Your task to perform on an android device: When is my next meeting? Image 0: 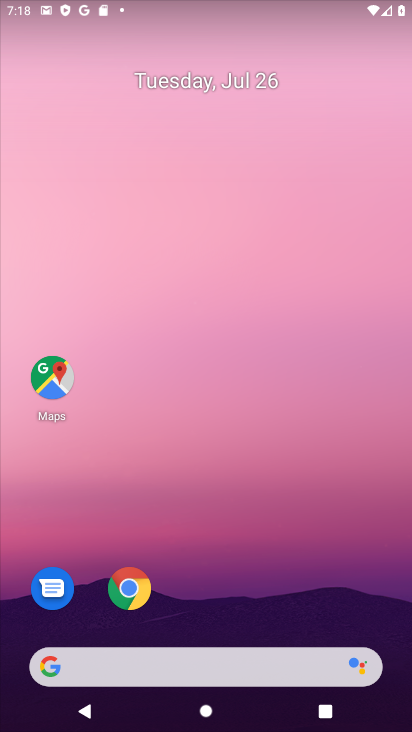
Step 0: drag from (221, 619) to (209, 68)
Your task to perform on an android device: When is my next meeting? Image 1: 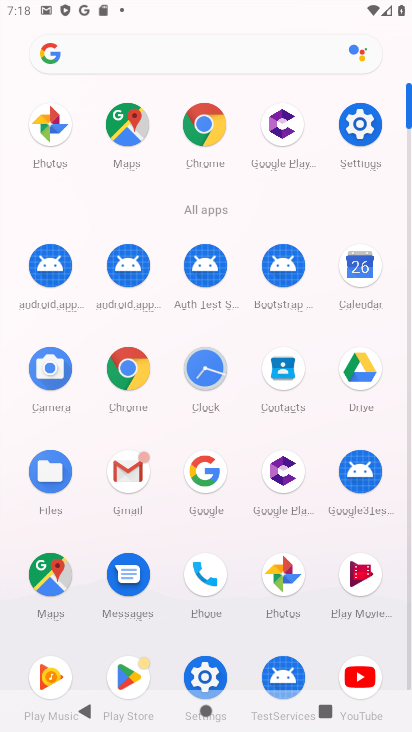
Step 1: click (366, 301)
Your task to perform on an android device: When is my next meeting? Image 2: 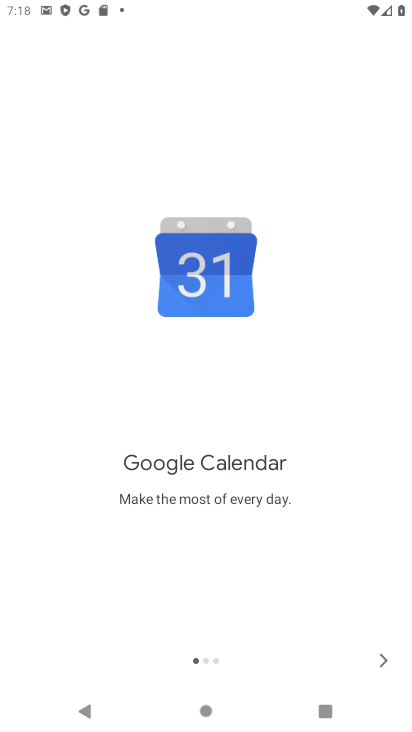
Step 2: click (390, 658)
Your task to perform on an android device: When is my next meeting? Image 3: 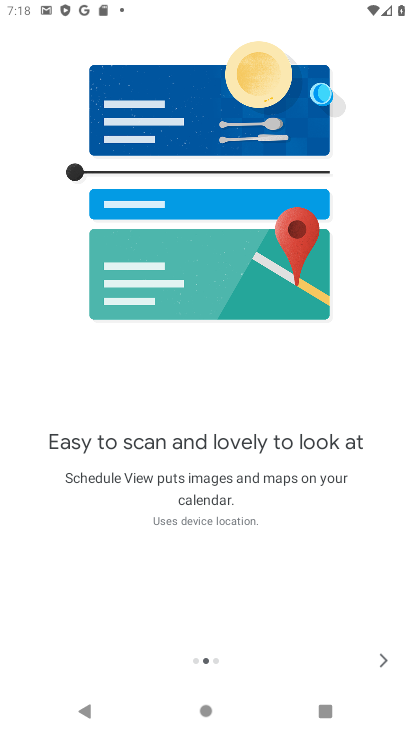
Step 3: click (380, 669)
Your task to perform on an android device: When is my next meeting? Image 4: 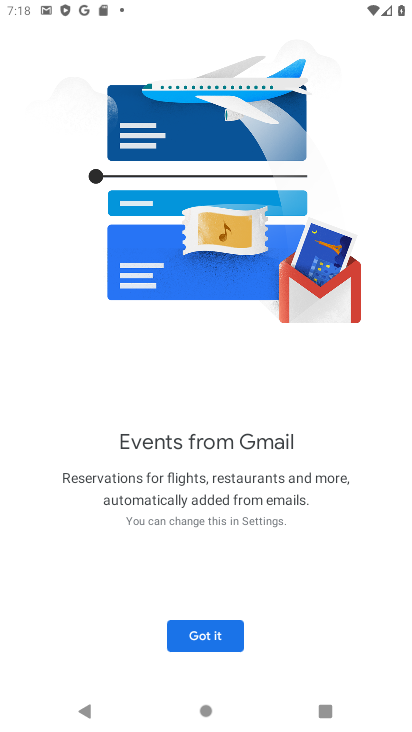
Step 4: click (209, 637)
Your task to perform on an android device: When is my next meeting? Image 5: 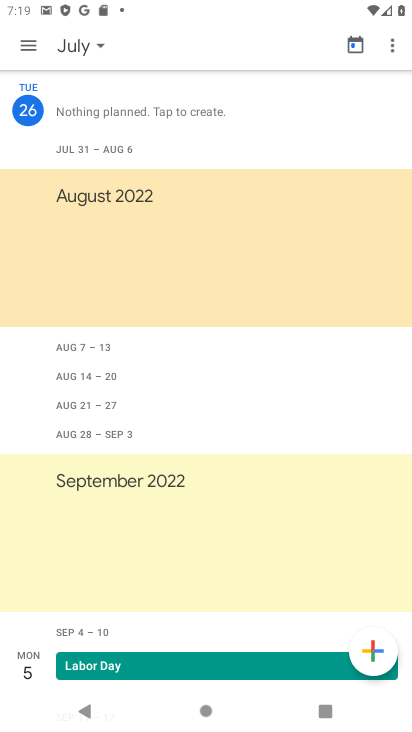
Step 5: click (33, 56)
Your task to perform on an android device: When is my next meeting? Image 6: 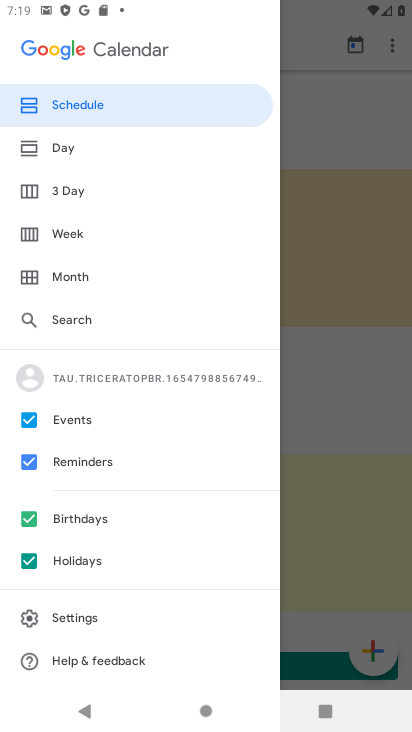
Step 6: click (27, 561)
Your task to perform on an android device: When is my next meeting? Image 7: 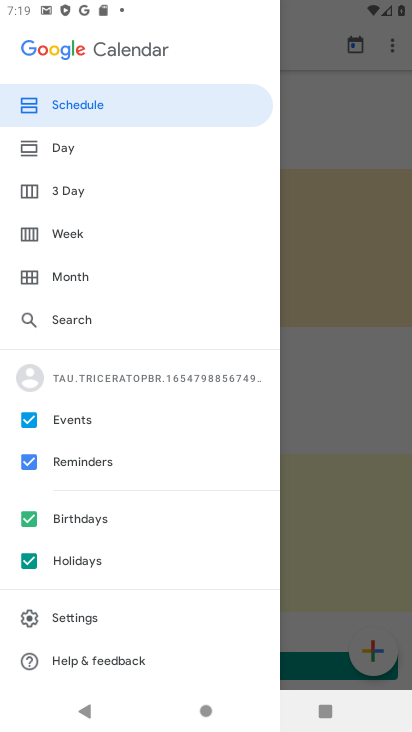
Step 7: click (30, 517)
Your task to perform on an android device: When is my next meeting? Image 8: 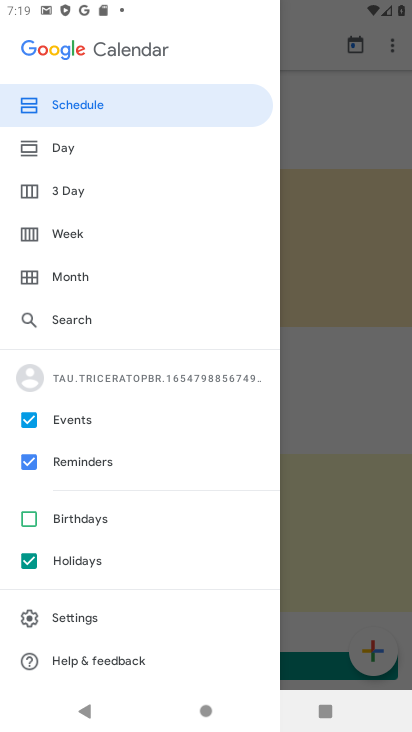
Step 8: click (33, 560)
Your task to perform on an android device: When is my next meeting? Image 9: 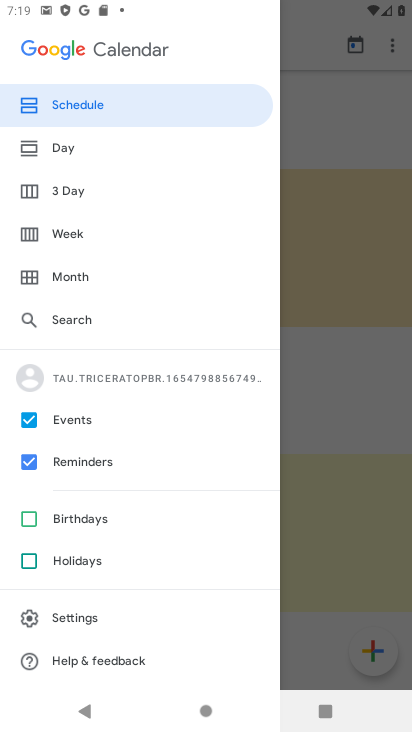
Step 9: click (383, 405)
Your task to perform on an android device: When is my next meeting? Image 10: 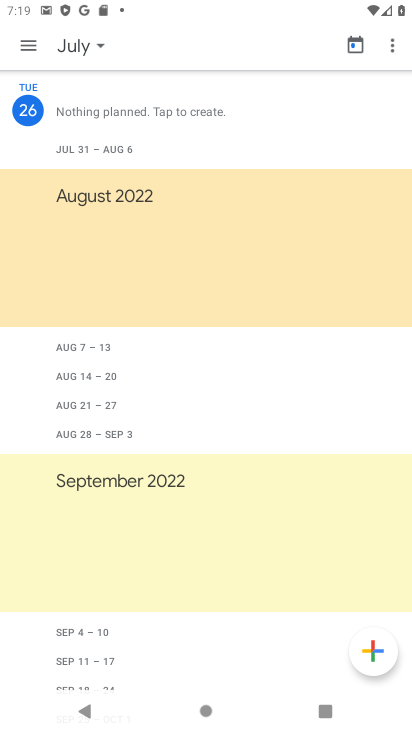
Step 10: task complete